Your task to perform on an android device: open chrome privacy settings Image 0: 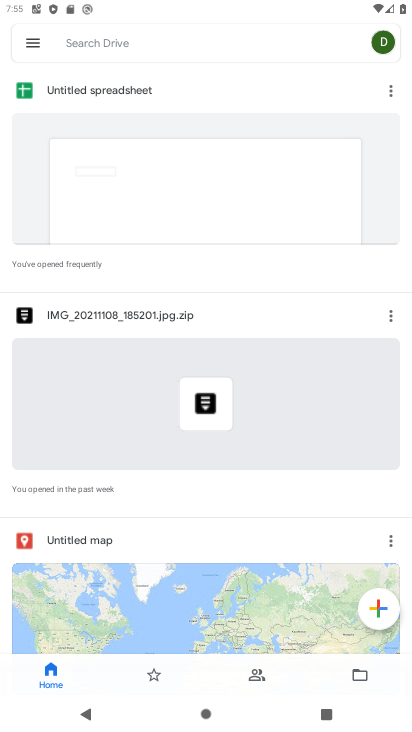
Step 0: press home button
Your task to perform on an android device: open chrome privacy settings Image 1: 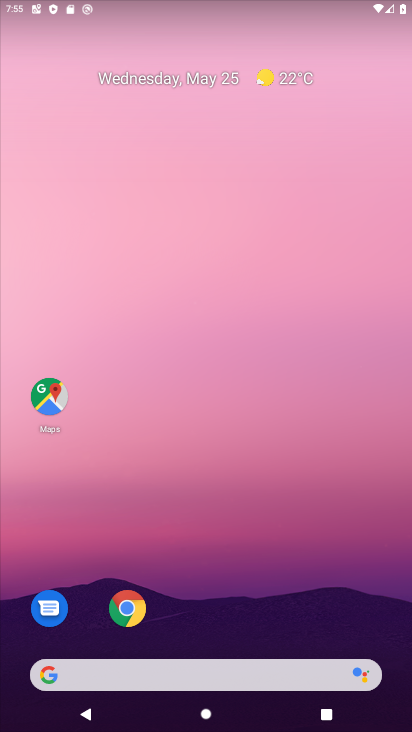
Step 1: click (127, 607)
Your task to perform on an android device: open chrome privacy settings Image 2: 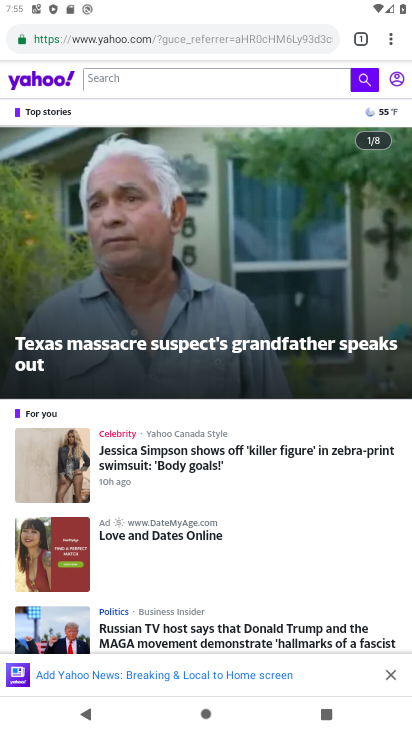
Step 2: click (391, 40)
Your task to perform on an android device: open chrome privacy settings Image 3: 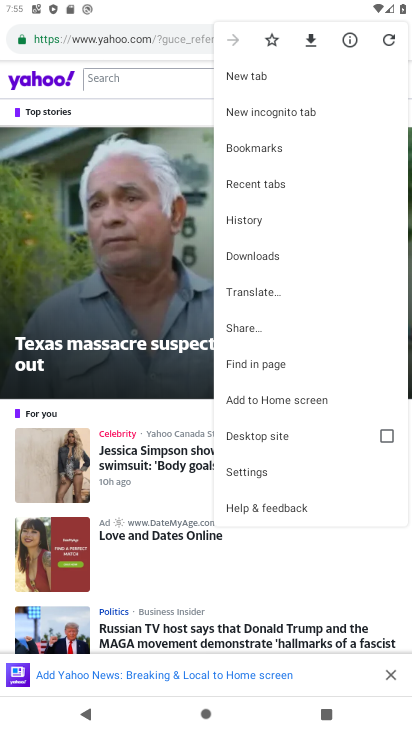
Step 3: click (256, 474)
Your task to perform on an android device: open chrome privacy settings Image 4: 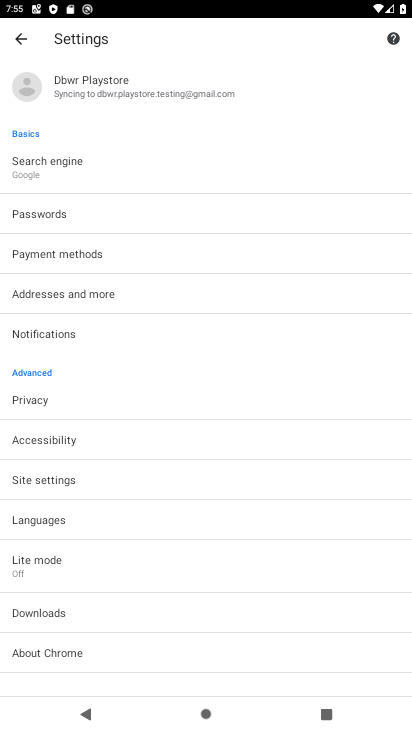
Step 4: click (36, 404)
Your task to perform on an android device: open chrome privacy settings Image 5: 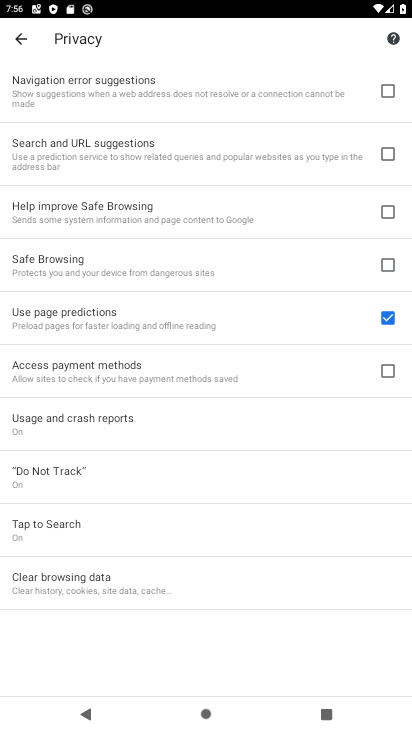
Step 5: task complete